Your task to perform on an android device: install app "Grab" Image 0: 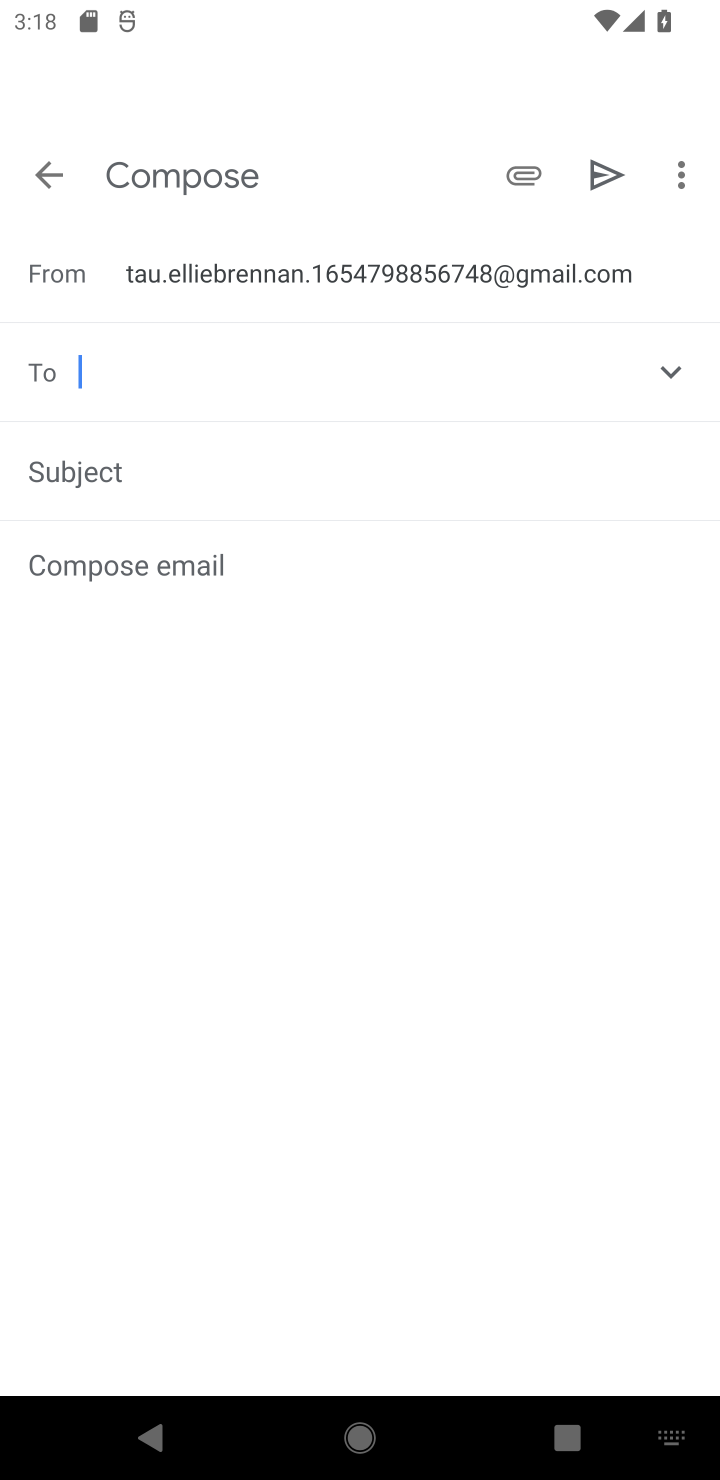
Step 0: press home button
Your task to perform on an android device: install app "Grab" Image 1: 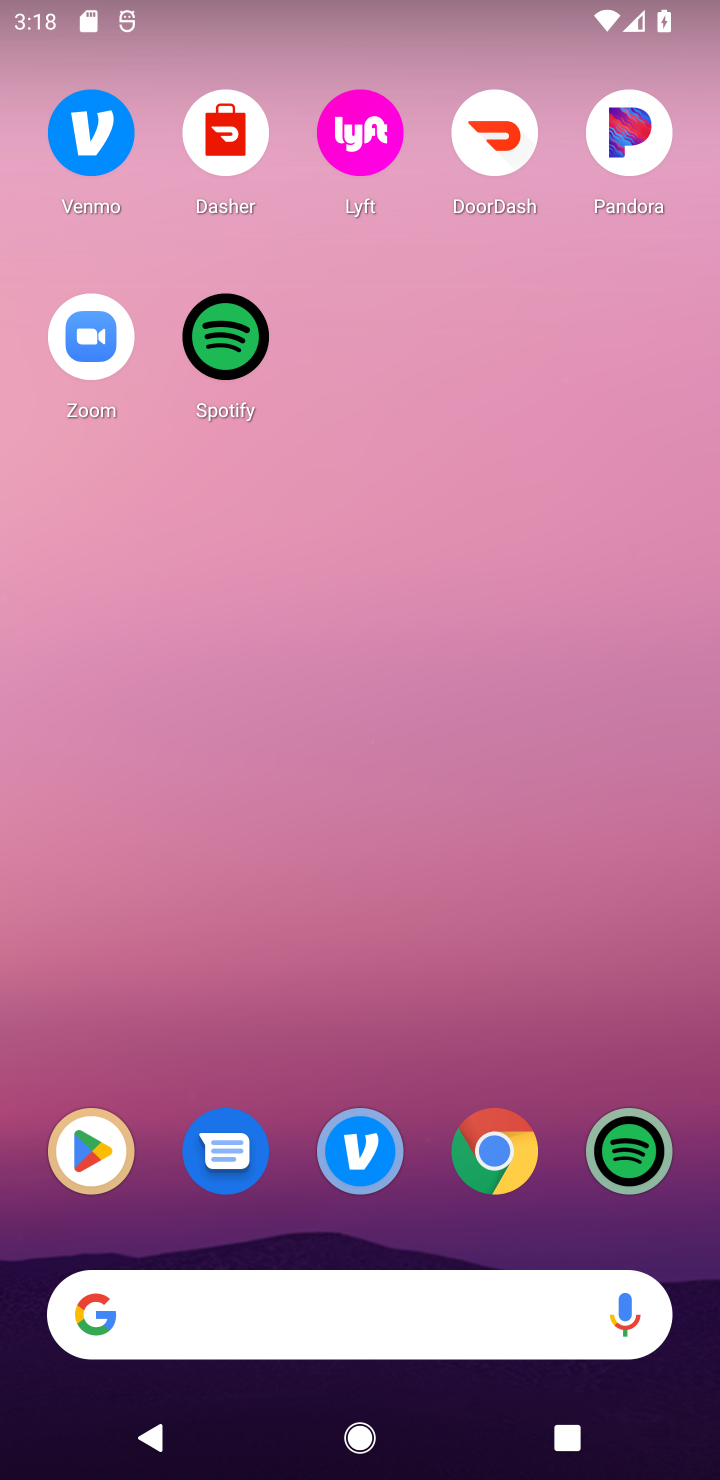
Step 1: drag from (501, 664) to (568, 140)
Your task to perform on an android device: install app "Grab" Image 2: 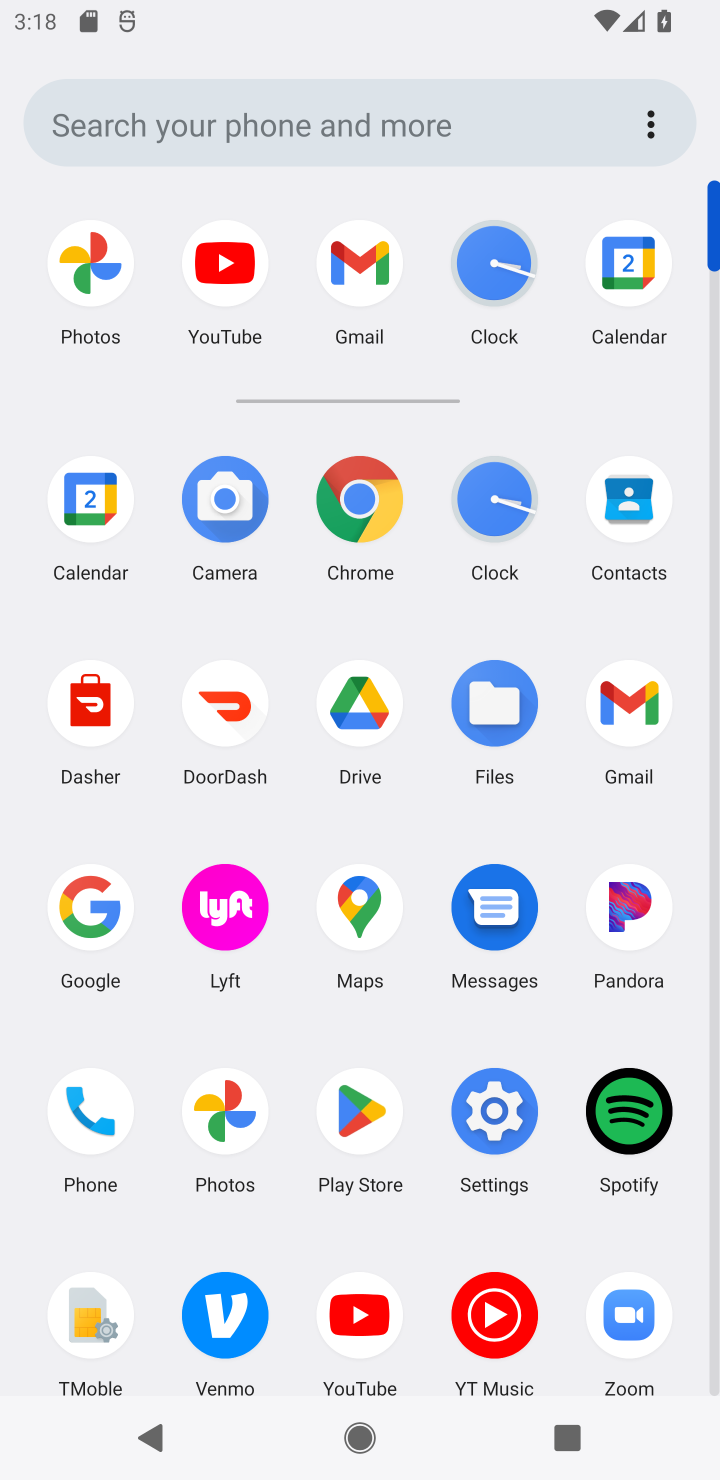
Step 2: click (385, 1123)
Your task to perform on an android device: install app "Grab" Image 3: 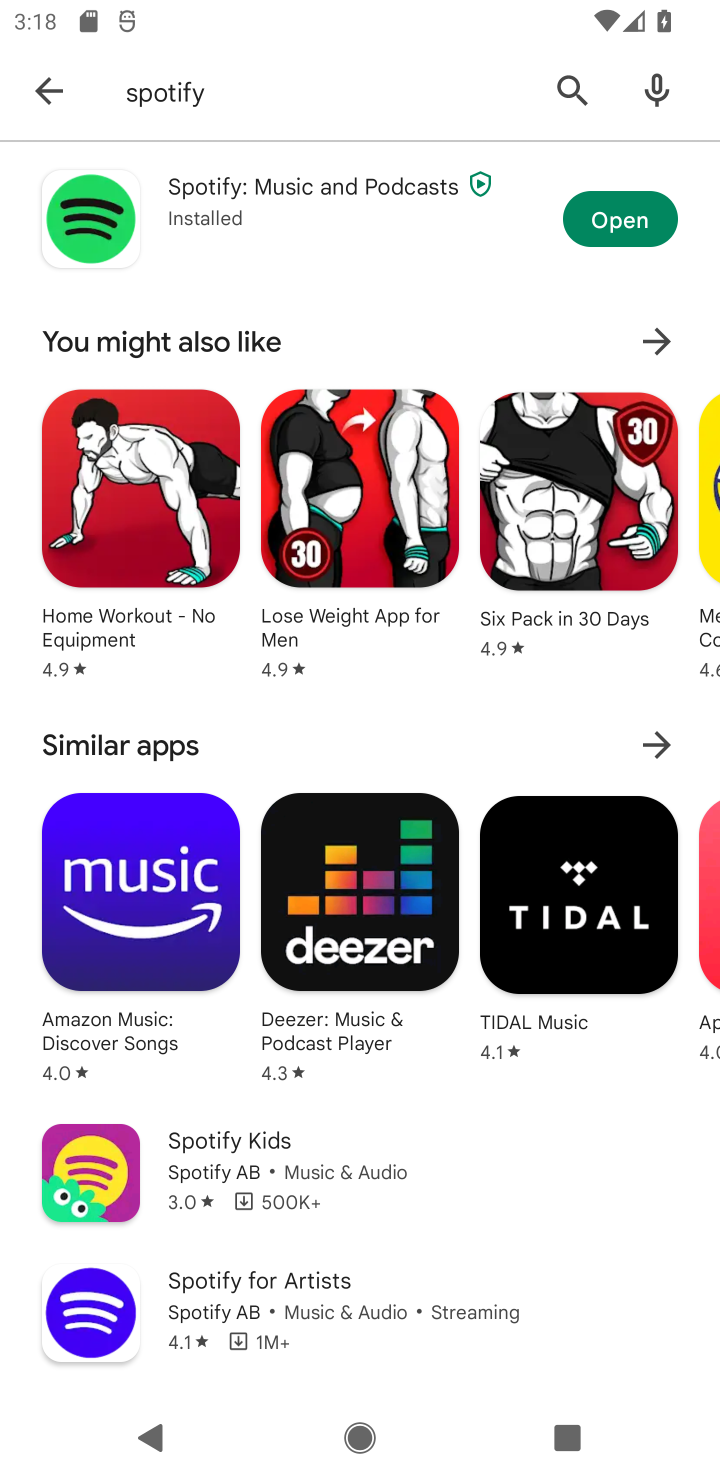
Step 3: click (49, 85)
Your task to perform on an android device: install app "Grab" Image 4: 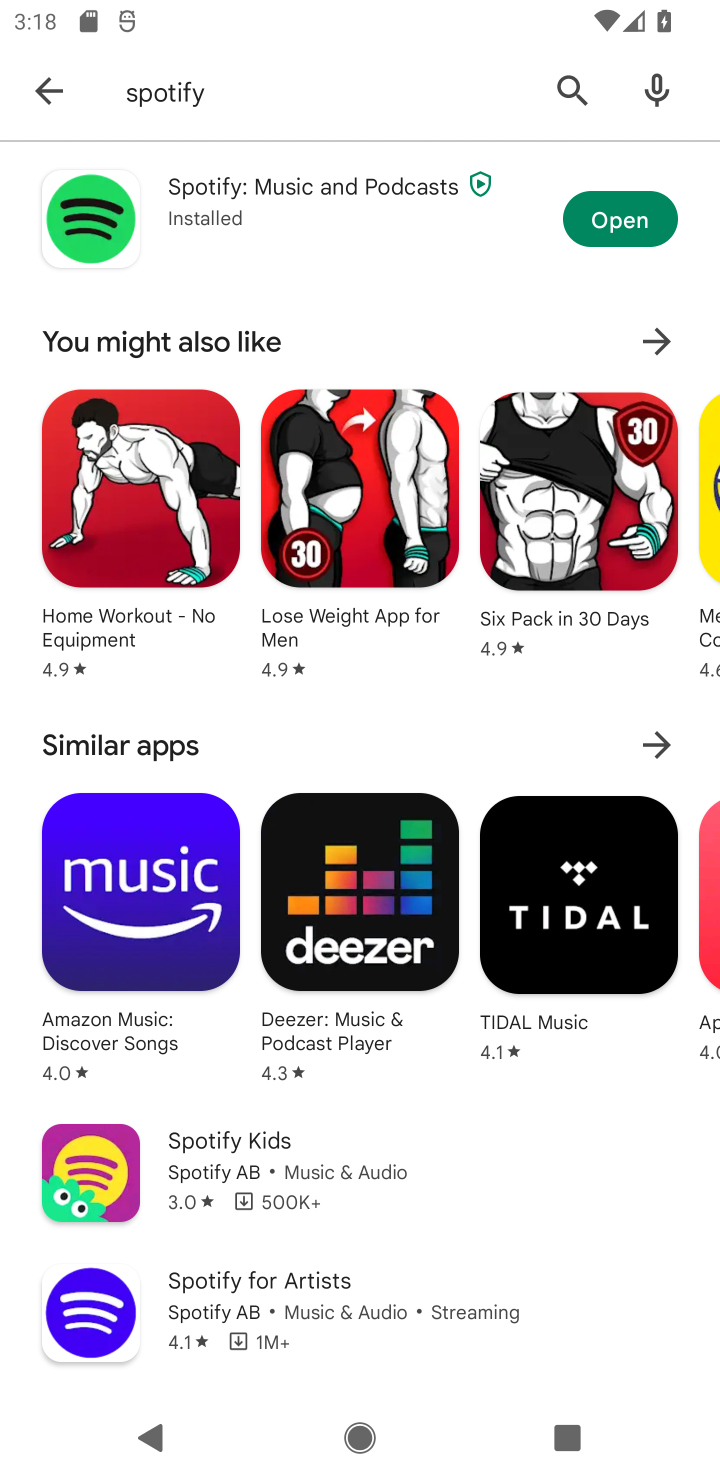
Step 4: click (36, 87)
Your task to perform on an android device: install app "Grab" Image 5: 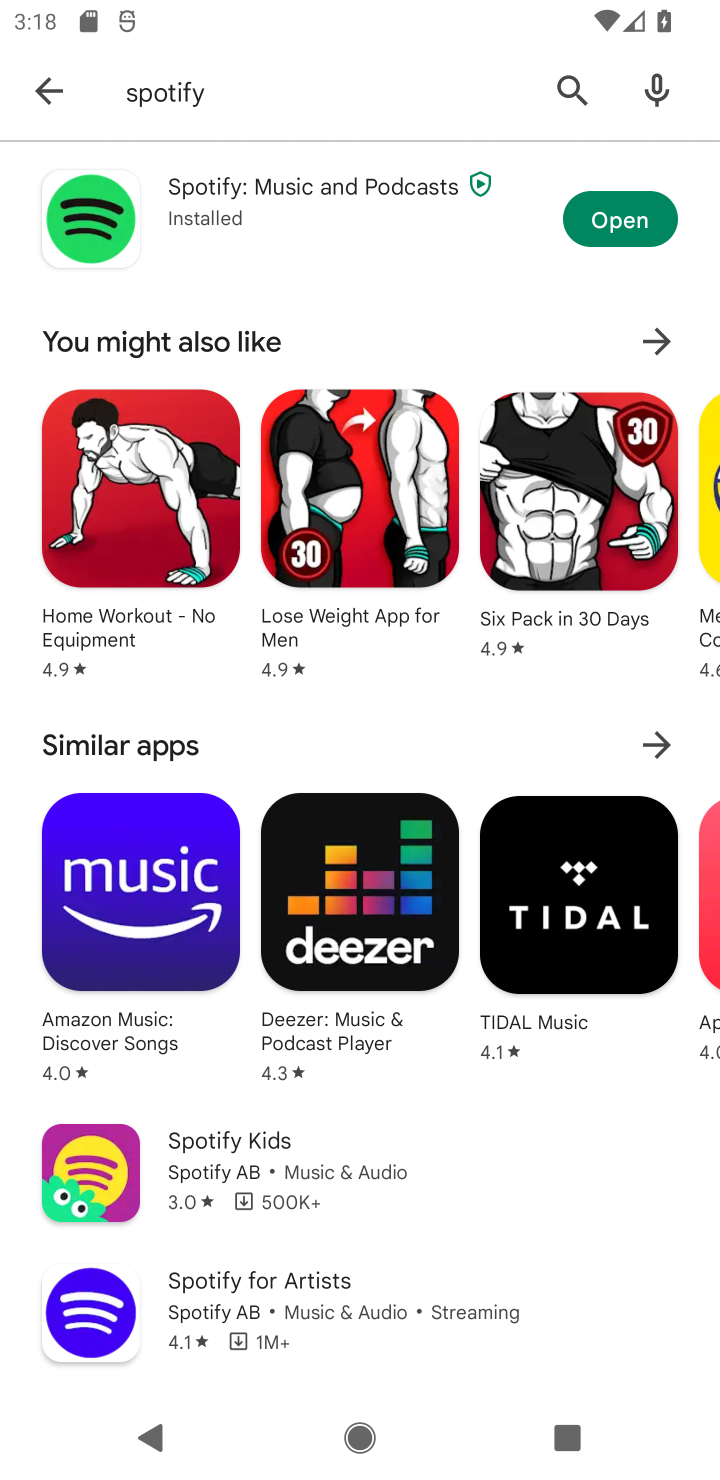
Step 5: click (52, 86)
Your task to perform on an android device: install app "Grab" Image 6: 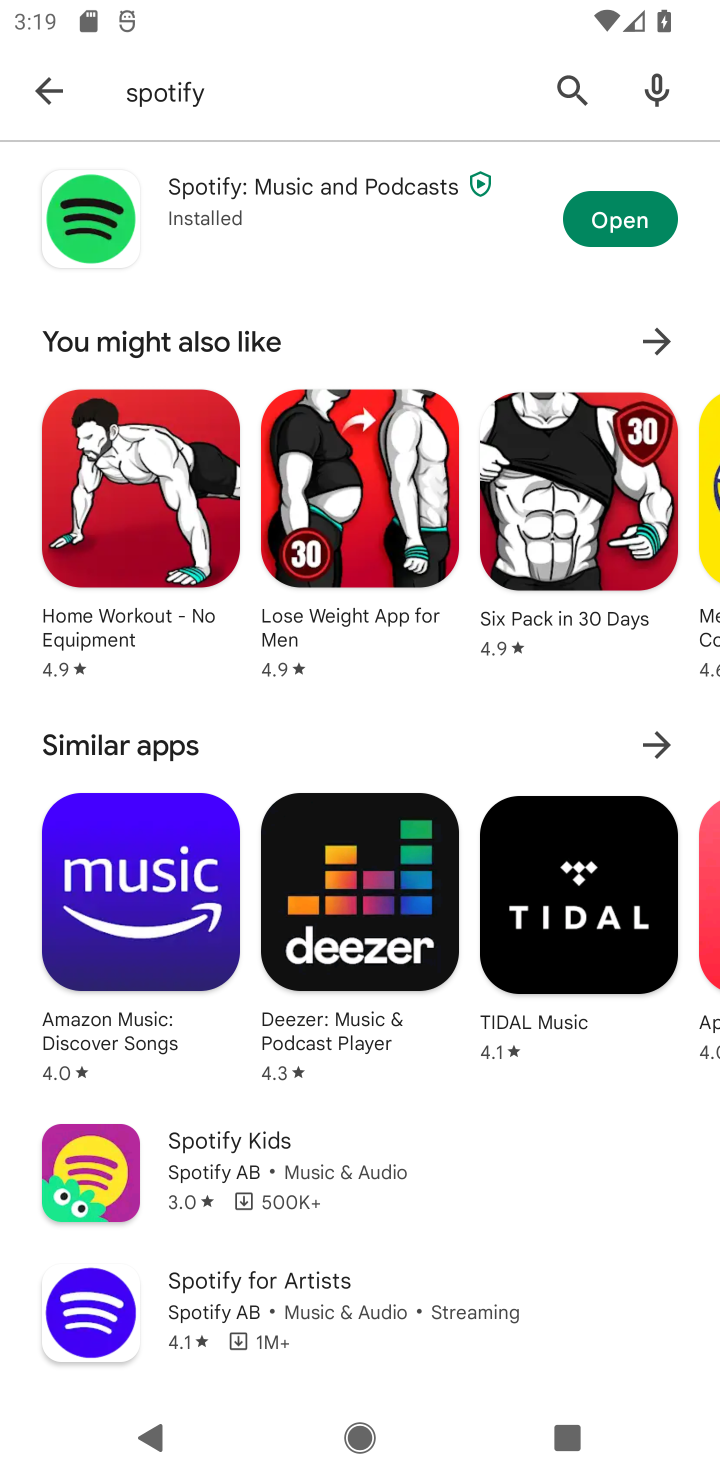
Step 6: click (46, 96)
Your task to perform on an android device: install app "Grab" Image 7: 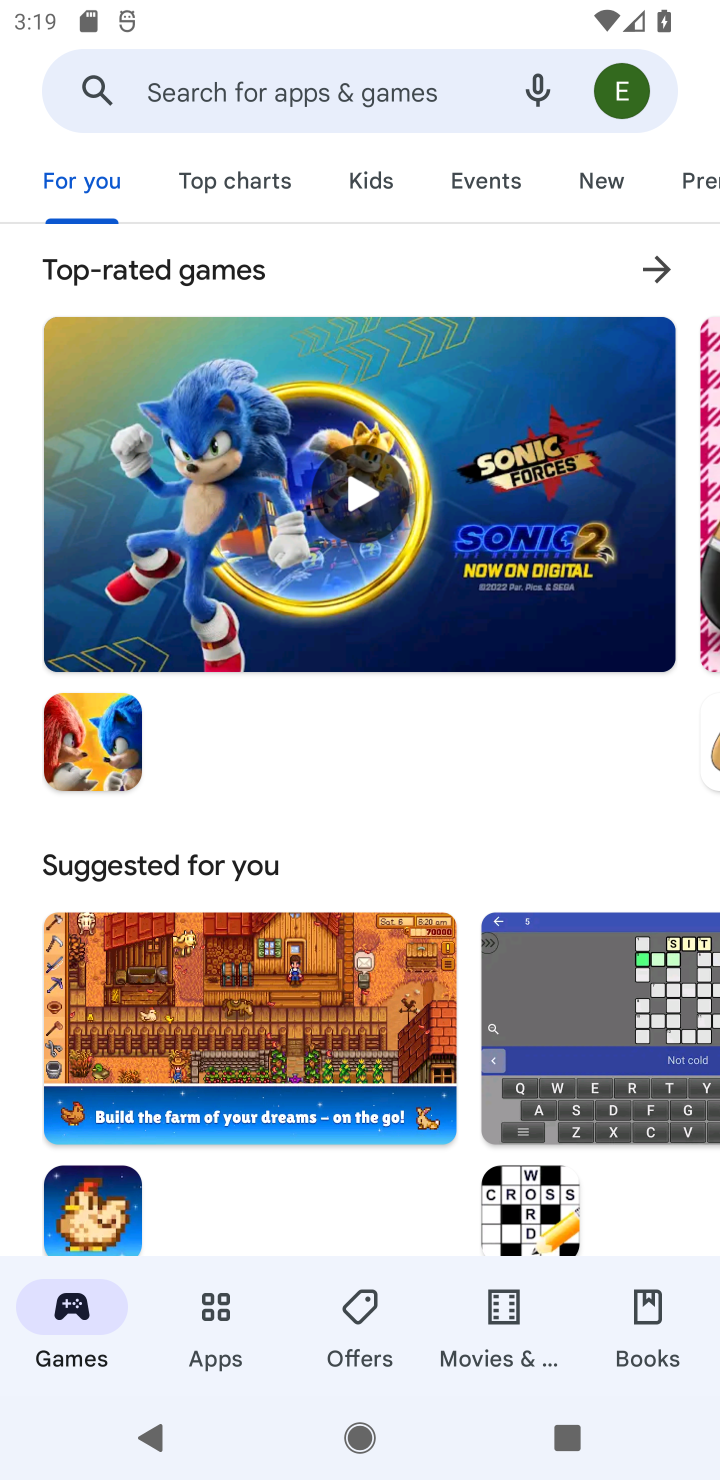
Step 7: click (218, 99)
Your task to perform on an android device: install app "Grab" Image 8: 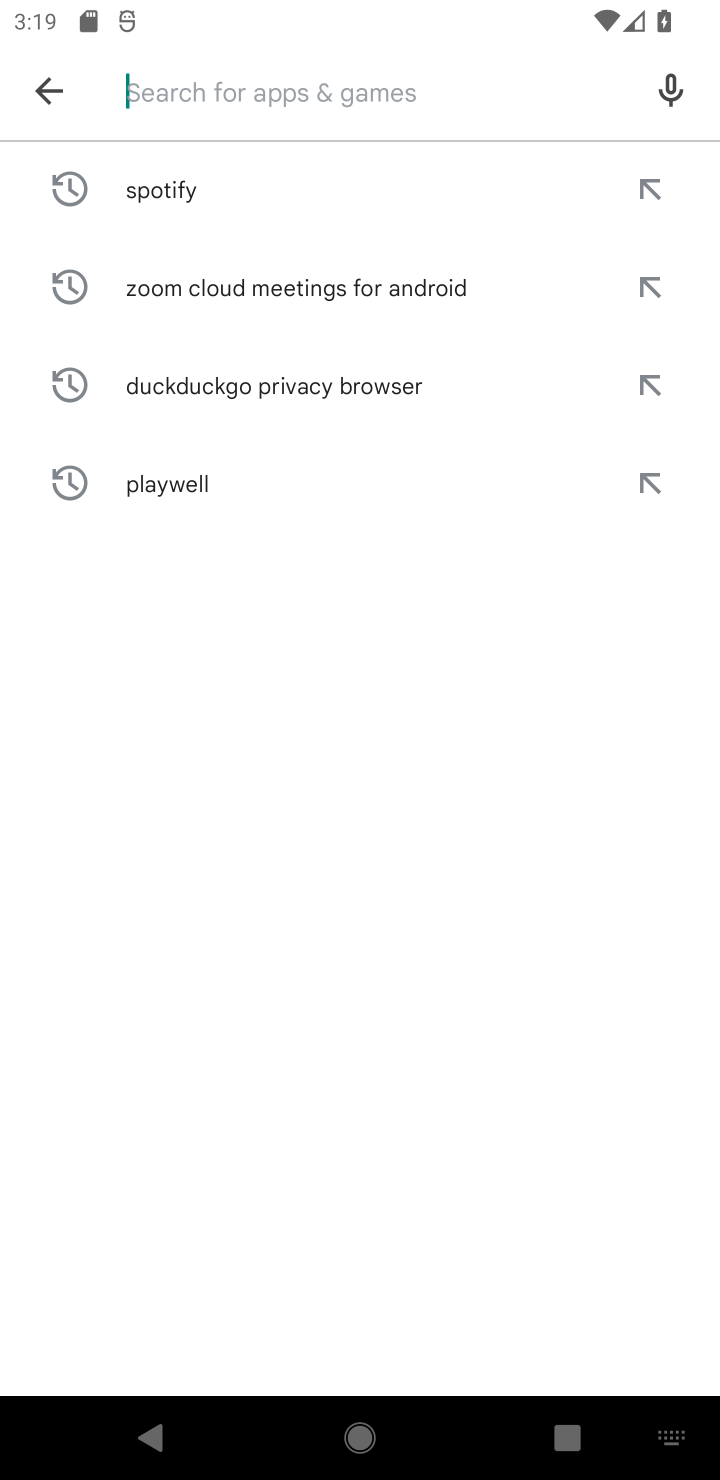
Step 8: type "Grab"
Your task to perform on an android device: install app "Grab" Image 9: 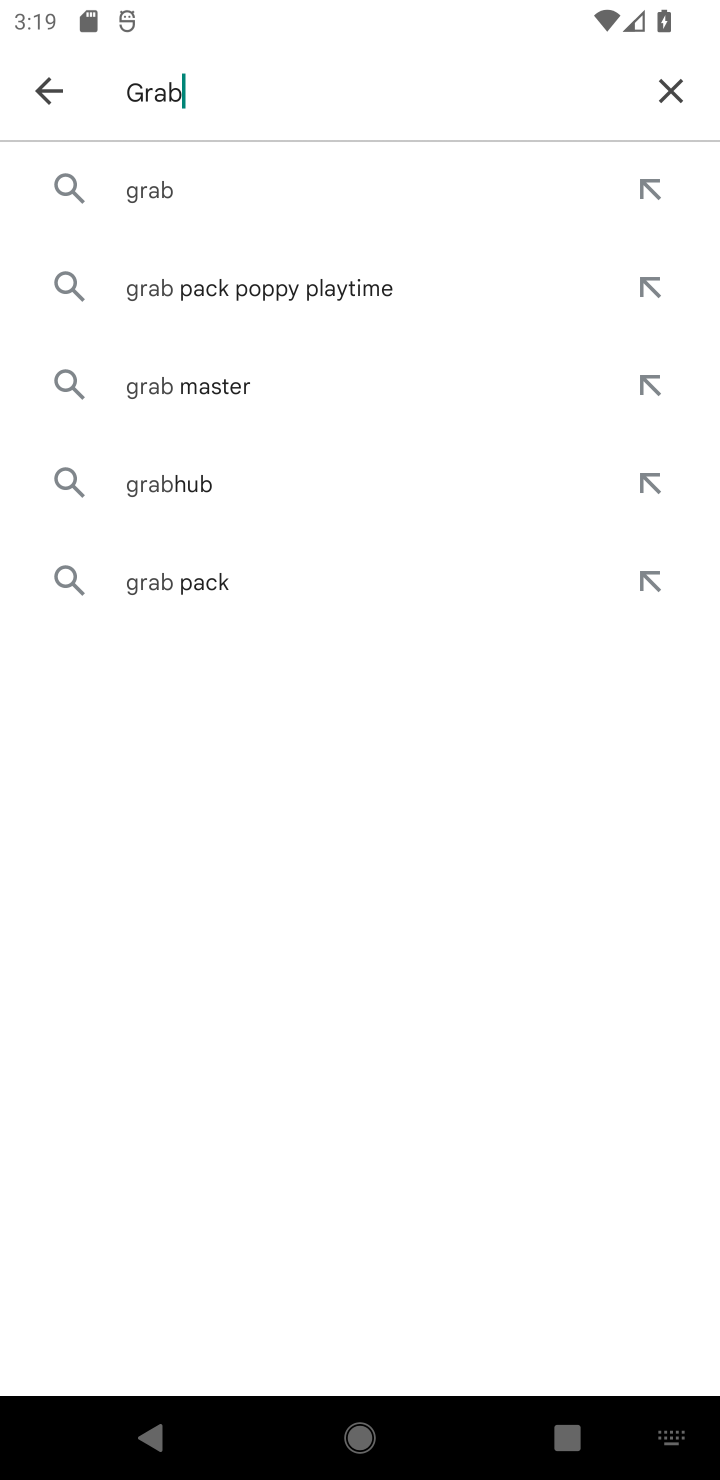
Step 9: click (174, 186)
Your task to perform on an android device: install app "Grab" Image 10: 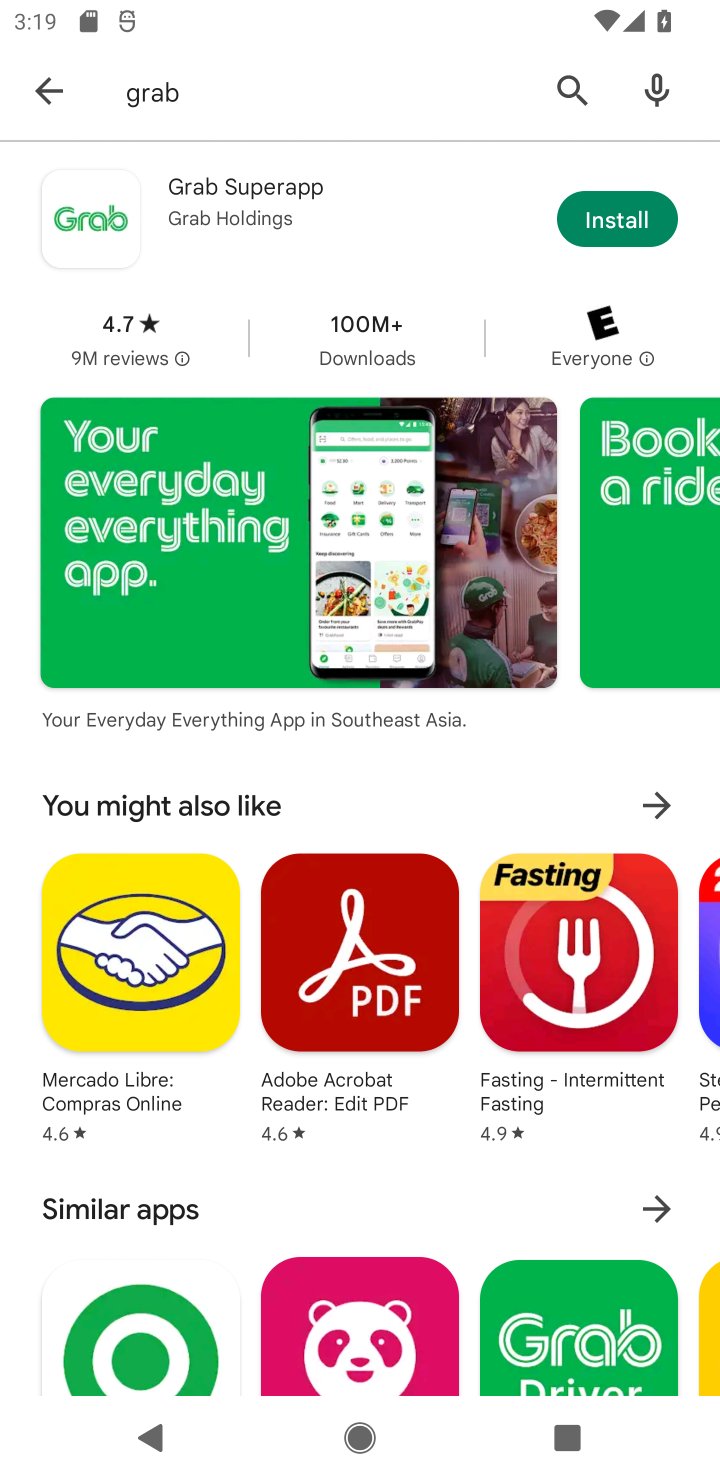
Step 10: click (651, 221)
Your task to perform on an android device: install app "Grab" Image 11: 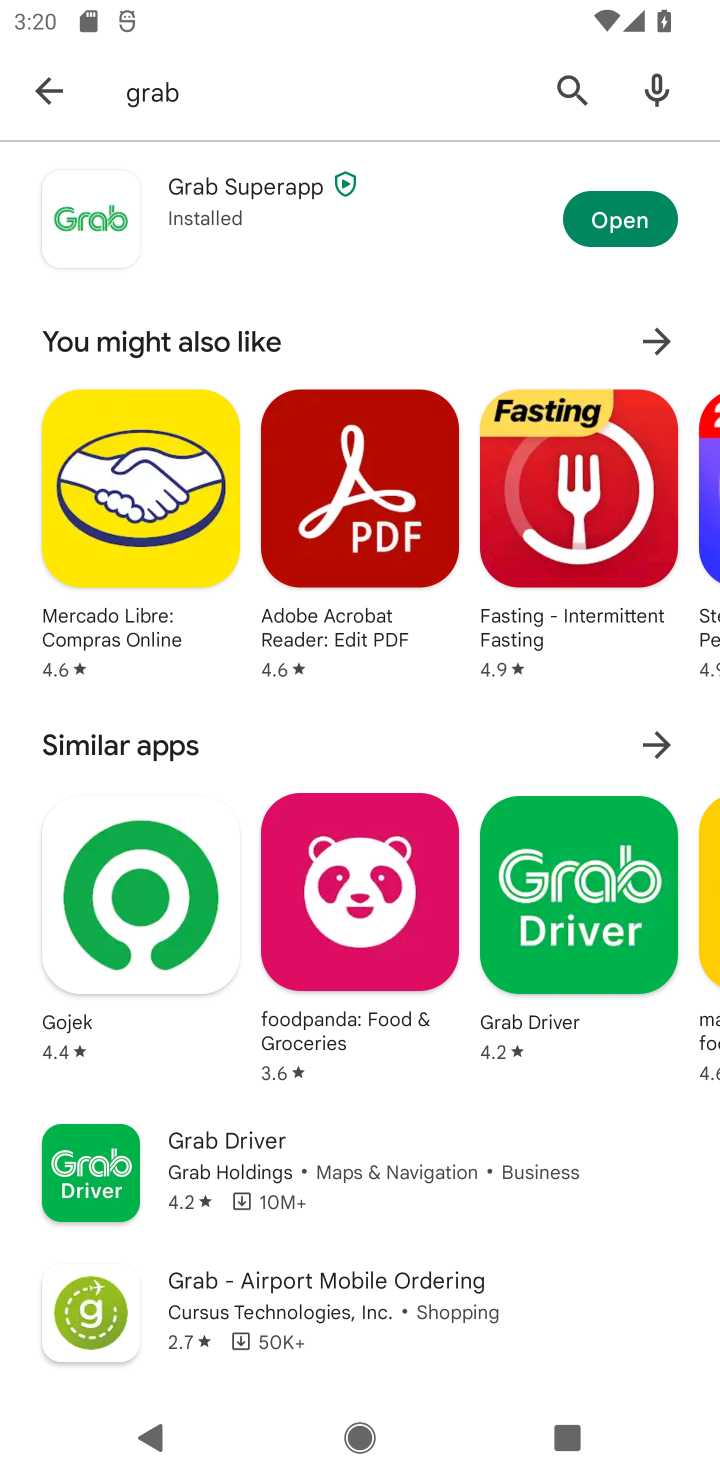
Step 11: task complete